Your task to perform on an android device: Open settings on Google Maps Image 0: 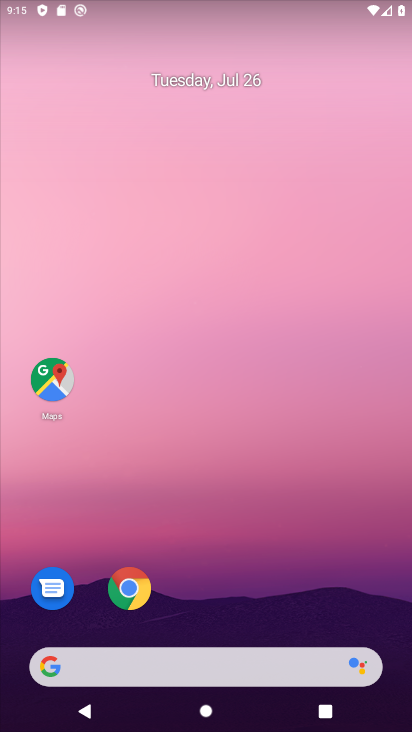
Step 0: click (51, 375)
Your task to perform on an android device: Open settings on Google Maps Image 1: 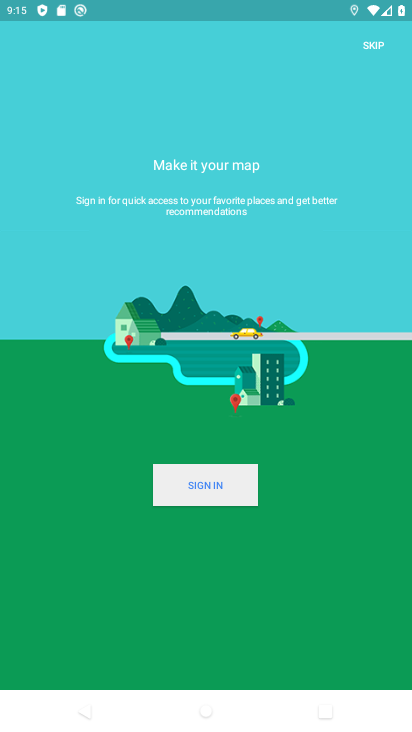
Step 1: click (374, 45)
Your task to perform on an android device: Open settings on Google Maps Image 2: 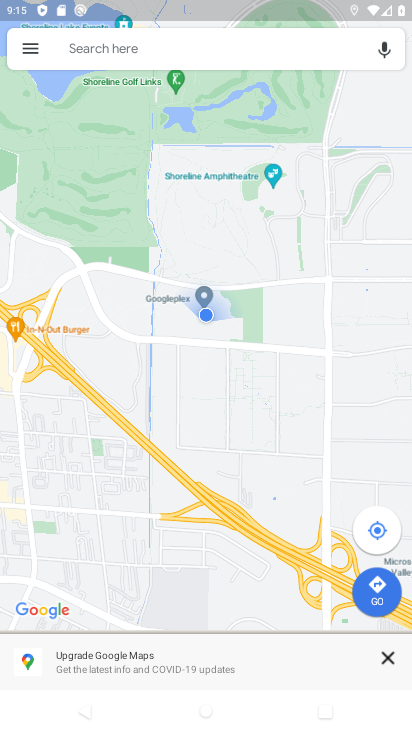
Step 2: click (32, 54)
Your task to perform on an android device: Open settings on Google Maps Image 3: 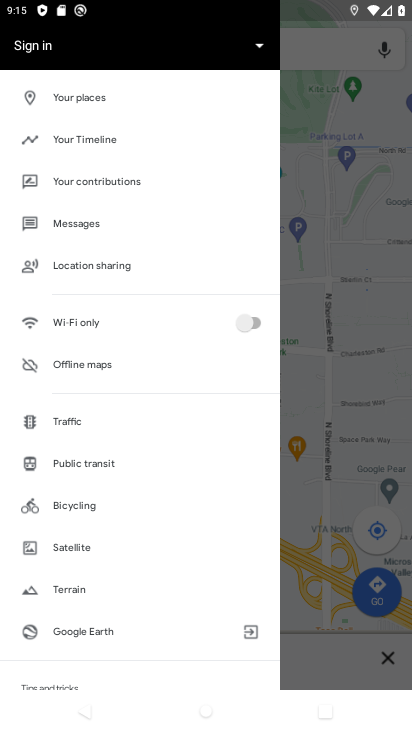
Step 3: drag from (82, 669) to (40, 115)
Your task to perform on an android device: Open settings on Google Maps Image 4: 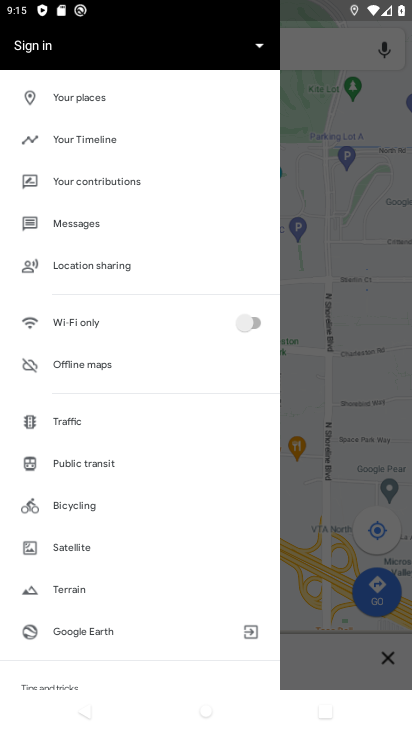
Step 4: drag from (80, 653) to (139, 126)
Your task to perform on an android device: Open settings on Google Maps Image 5: 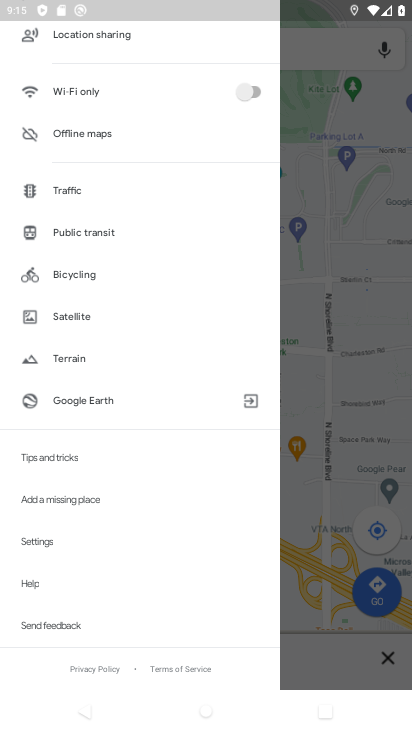
Step 5: click (24, 533)
Your task to perform on an android device: Open settings on Google Maps Image 6: 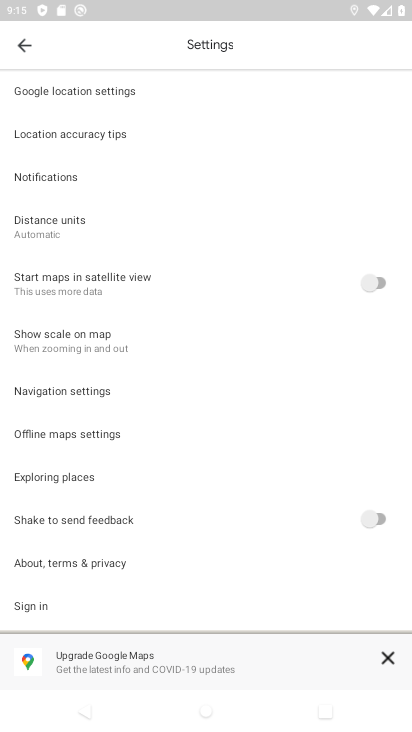
Step 6: task complete